Your task to perform on an android device: Open CNN.com Image 0: 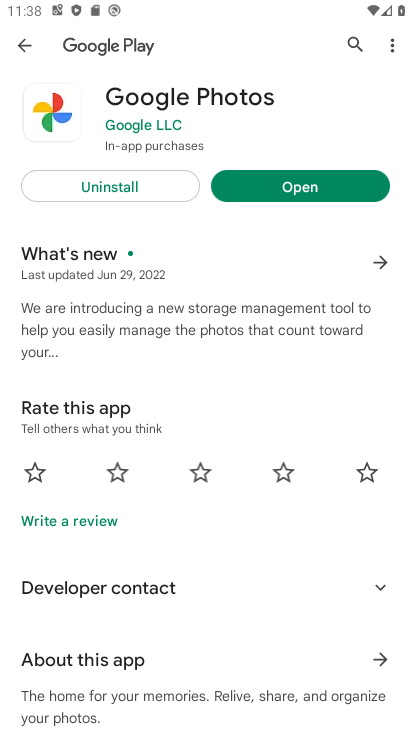
Step 0: press home button
Your task to perform on an android device: Open CNN.com Image 1: 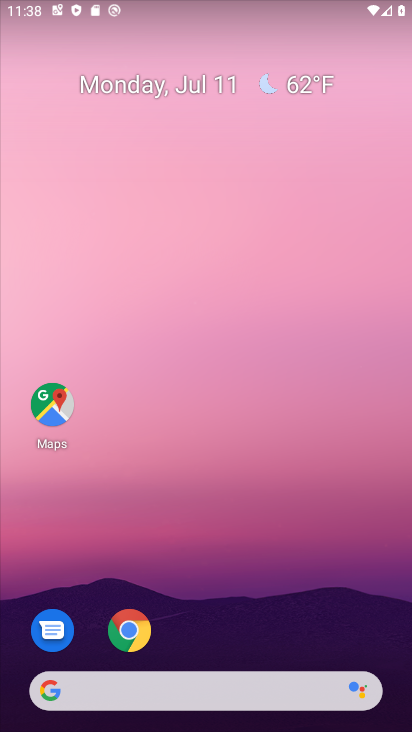
Step 1: drag from (266, 691) to (235, 59)
Your task to perform on an android device: Open CNN.com Image 2: 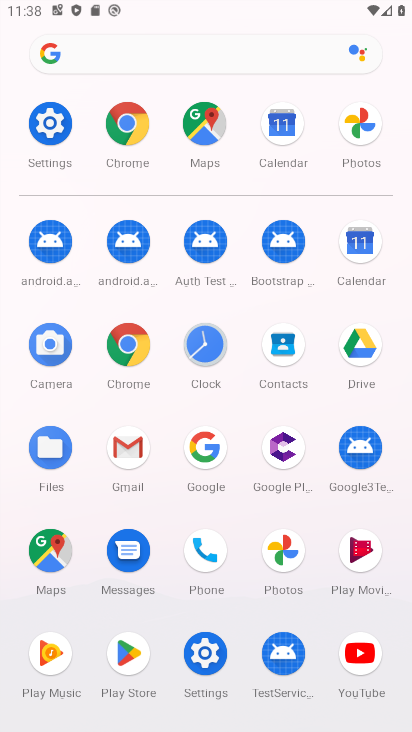
Step 2: click (143, 340)
Your task to perform on an android device: Open CNN.com Image 3: 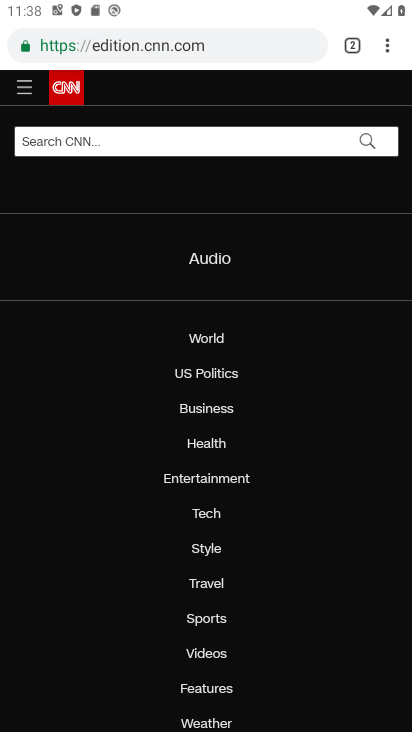
Step 3: task complete